Your task to perform on an android device: toggle javascript in the chrome app Image 0: 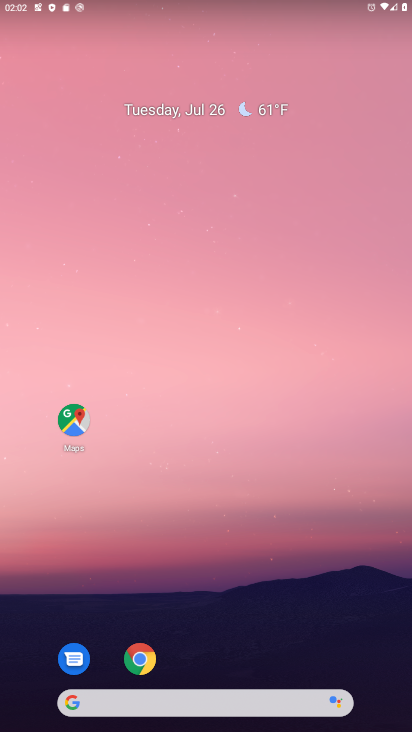
Step 0: drag from (301, 529) to (281, 31)
Your task to perform on an android device: toggle javascript in the chrome app Image 1: 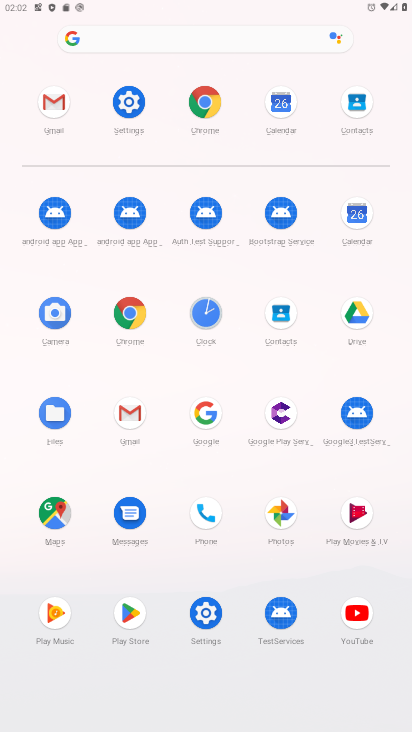
Step 1: click (206, 98)
Your task to perform on an android device: toggle javascript in the chrome app Image 2: 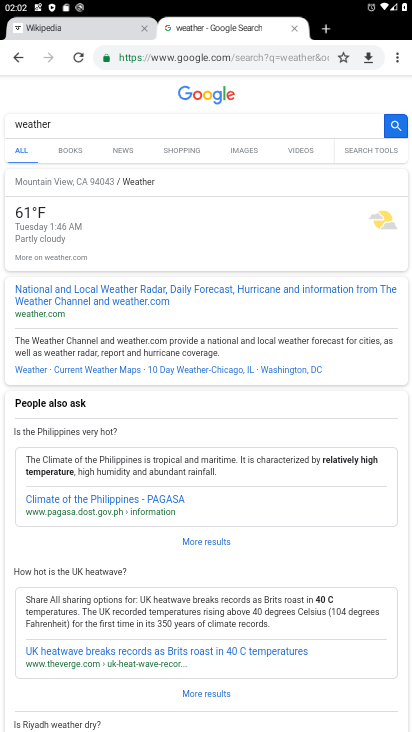
Step 2: drag from (401, 53) to (281, 355)
Your task to perform on an android device: toggle javascript in the chrome app Image 3: 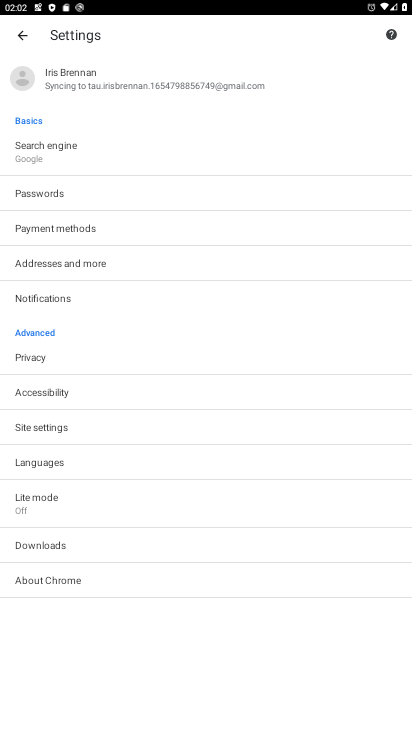
Step 3: click (45, 427)
Your task to perform on an android device: toggle javascript in the chrome app Image 4: 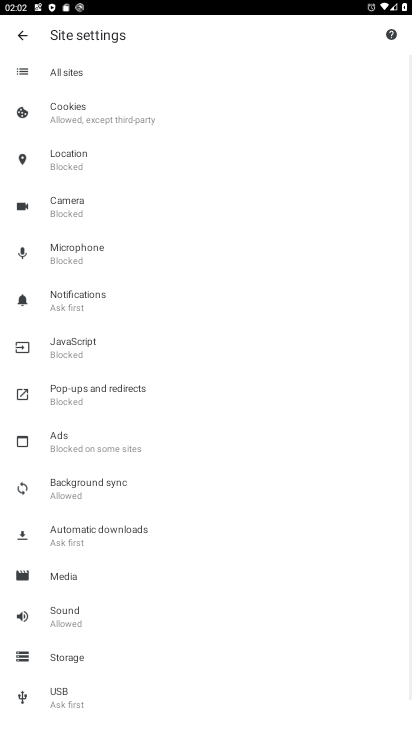
Step 4: click (71, 348)
Your task to perform on an android device: toggle javascript in the chrome app Image 5: 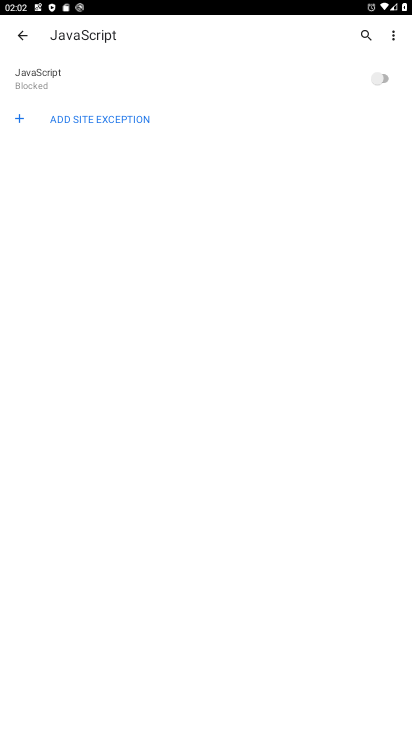
Step 5: click (382, 73)
Your task to perform on an android device: toggle javascript in the chrome app Image 6: 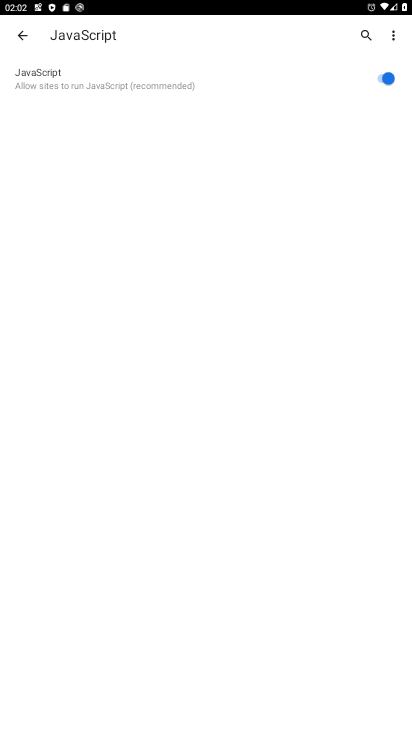
Step 6: task complete